Your task to perform on an android device: Go to eBay Image 0: 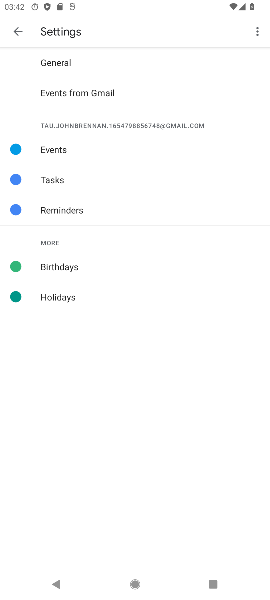
Step 0: press home button
Your task to perform on an android device: Go to eBay Image 1: 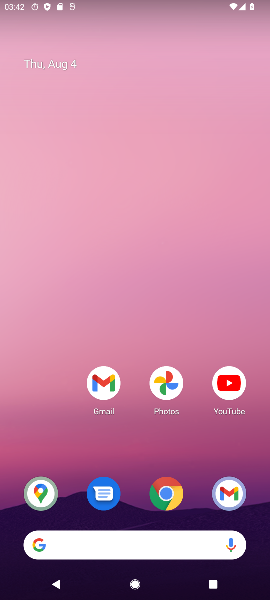
Step 1: click (71, 549)
Your task to perform on an android device: Go to eBay Image 2: 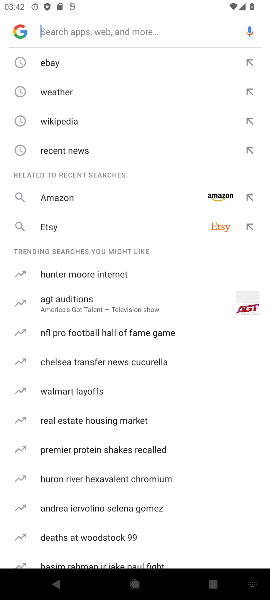
Step 2: click (45, 63)
Your task to perform on an android device: Go to eBay Image 3: 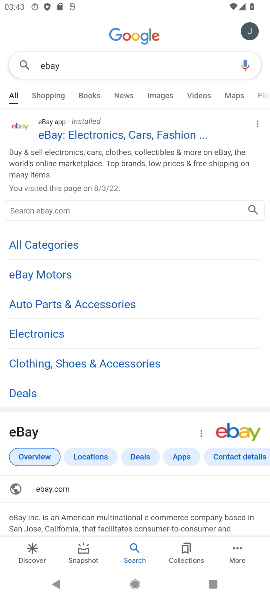
Step 3: task complete